Your task to perform on an android device: turn smart compose on in the gmail app Image 0: 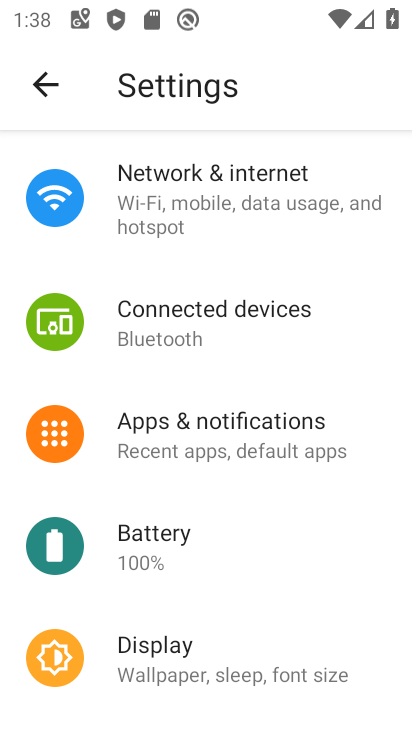
Step 0: press home button
Your task to perform on an android device: turn smart compose on in the gmail app Image 1: 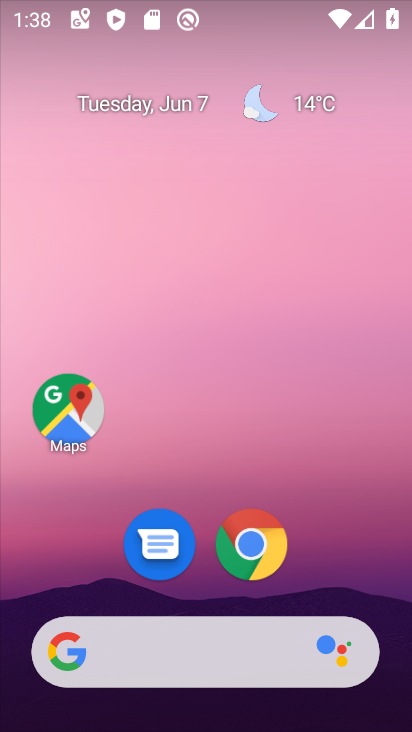
Step 1: drag from (359, 605) to (213, 116)
Your task to perform on an android device: turn smart compose on in the gmail app Image 2: 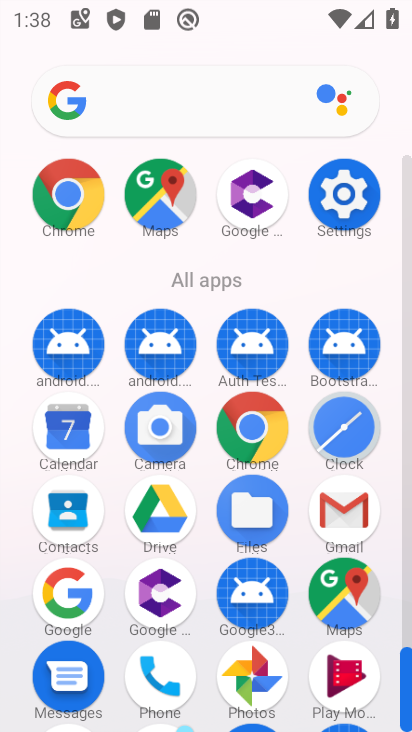
Step 2: click (350, 520)
Your task to perform on an android device: turn smart compose on in the gmail app Image 3: 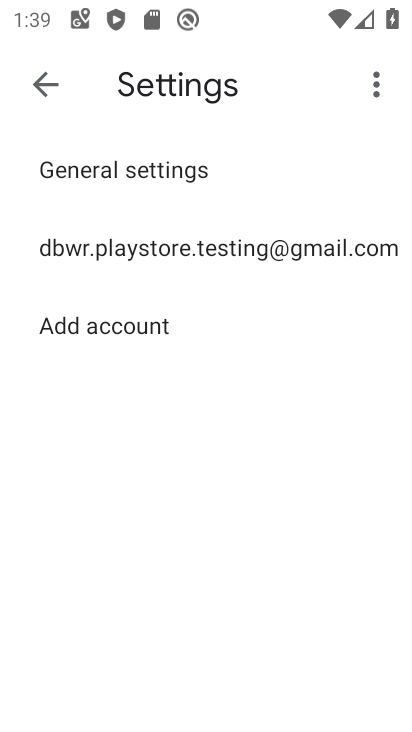
Step 3: click (240, 258)
Your task to perform on an android device: turn smart compose on in the gmail app Image 4: 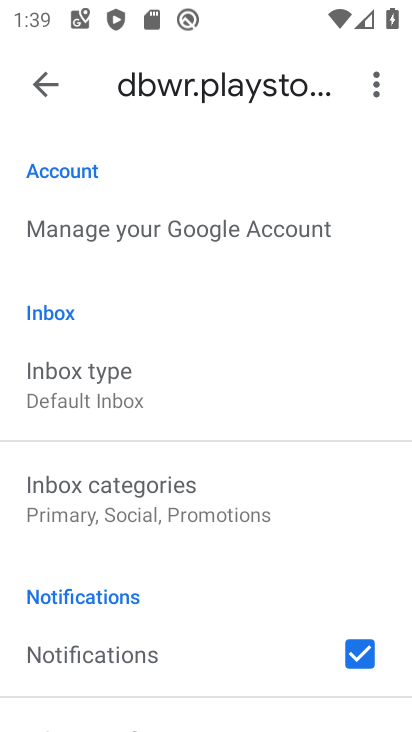
Step 4: task complete